Your task to perform on an android device: Show me recent news Image 0: 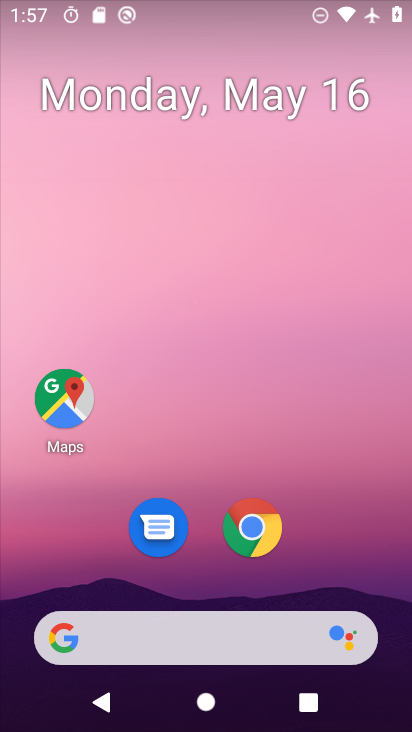
Step 0: click (69, 635)
Your task to perform on an android device: Show me recent news Image 1: 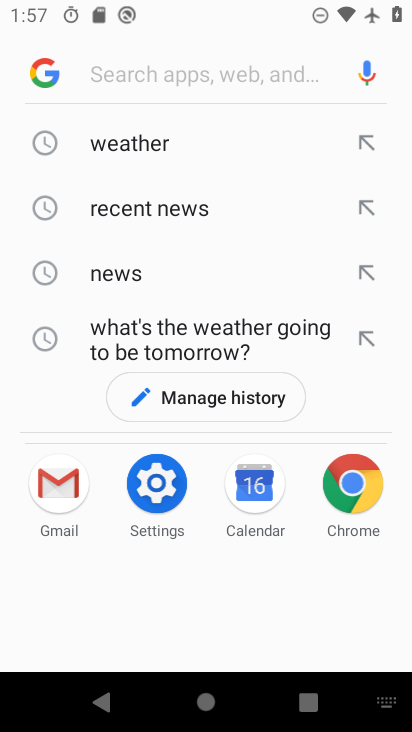
Step 1: click (172, 208)
Your task to perform on an android device: Show me recent news Image 2: 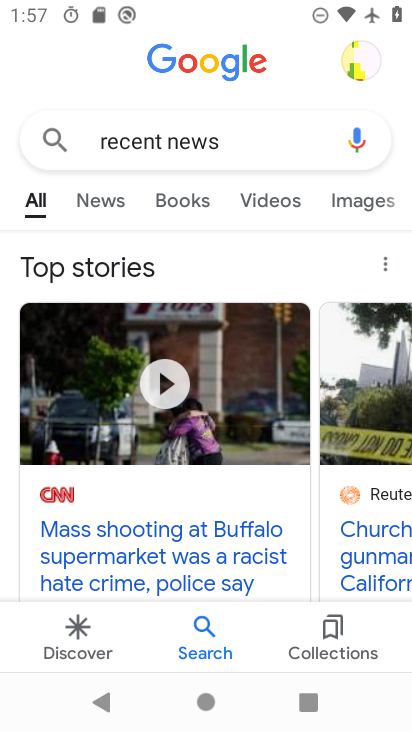
Step 2: click (88, 200)
Your task to perform on an android device: Show me recent news Image 3: 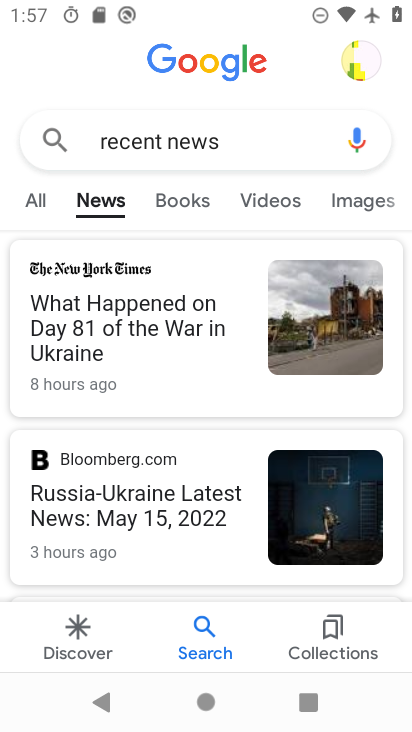
Step 3: task complete